Your task to perform on an android device: delete a single message in the gmail app Image 0: 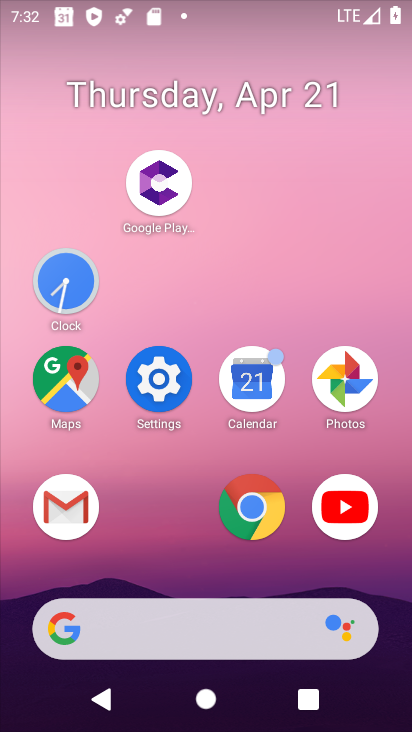
Step 0: click (58, 503)
Your task to perform on an android device: delete a single message in the gmail app Image 1: 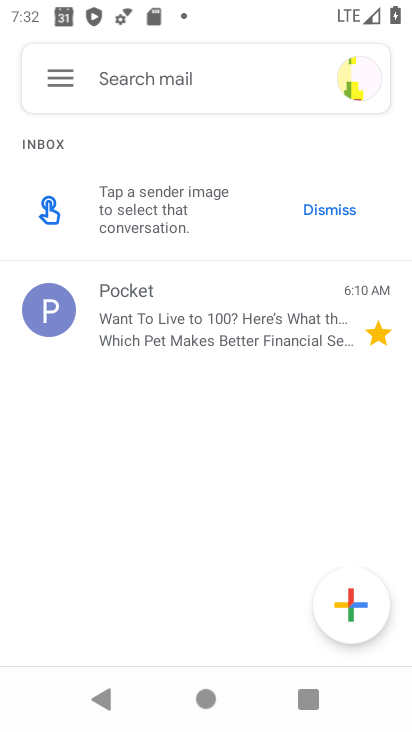
Step 1: click (162, 304)
Your task to perform on an android device: delete a single message in the gmail app Image 2: 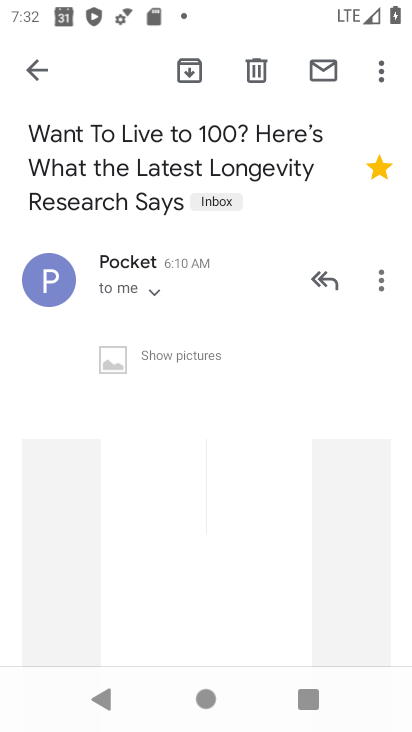
Step 2: click (255, 70)
Your task to perform on an android device: delete a single message in the gmail app Image 3: 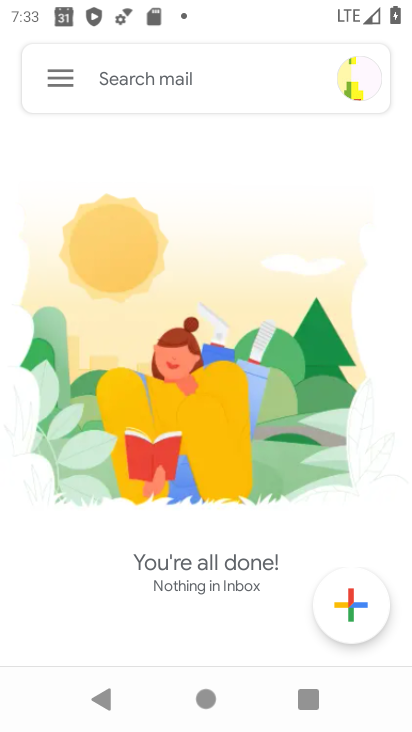
Step 3: task complete